Your task to perform on an android device: What's the weather today? Image 0: 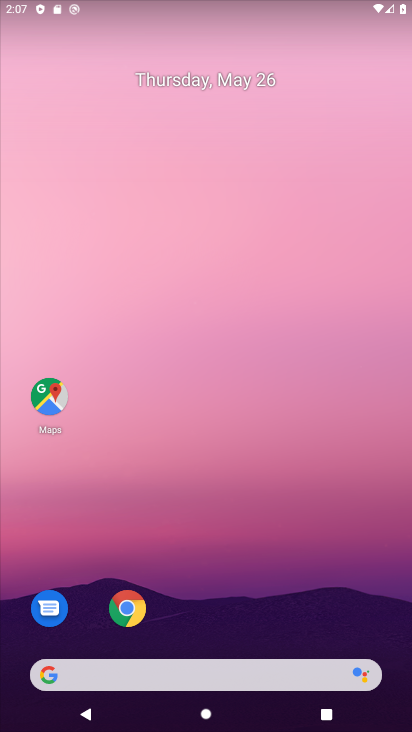
Step 0: drag from (170, 305) to (367, 83)
Your task to perform on an android device: What's the weather today? Image 1: 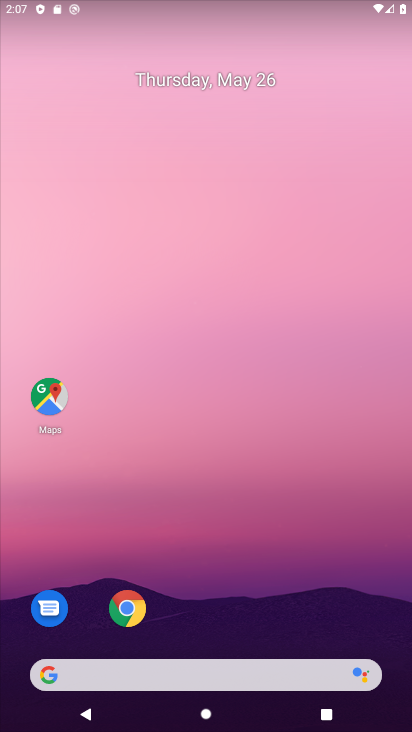
Step 1: drag from (7, 234) to (353, 127)
Your task to perform on an android device: What's the weather today? Image 2: 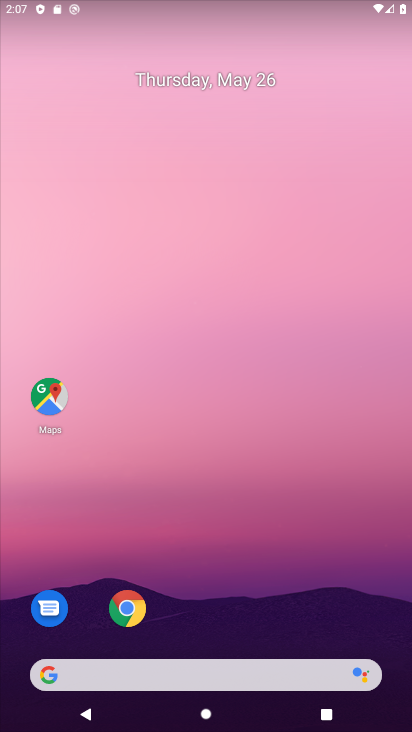
Step 2: drag from (4, 210) to (387, 473)
Your task to perform on an android device: What's the weather today? Image 3: 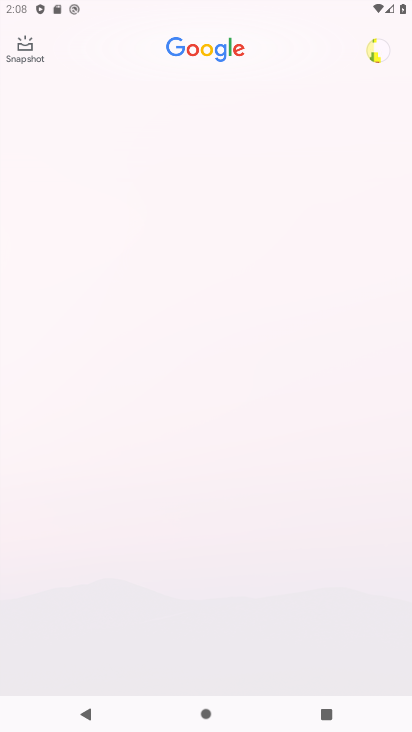
Step 3: click (233, 181)
Your task to perform on an android device: What's the weather today? Image 4: 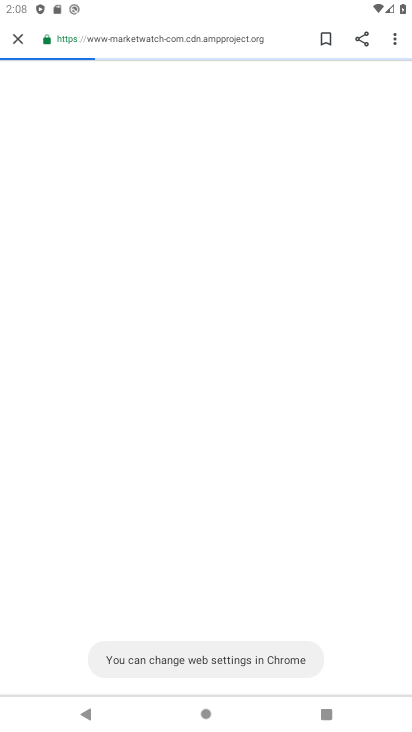
Step 4: click (254, 183)
Your task to perform on an android device: What's the weather today? Image 5: 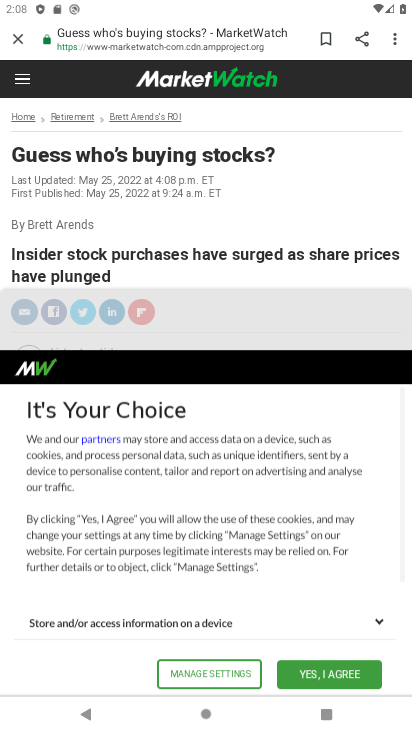
Step 5: press back button
Your task to perform on an android device: What's the weather today? Image 6: 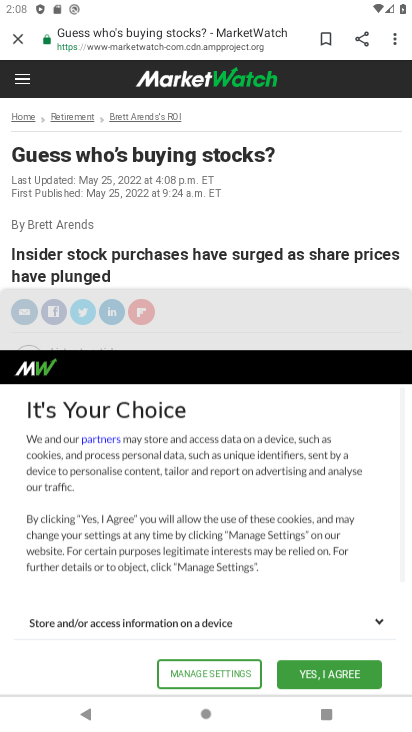
Step 6: press back button
Your task to perform on an android device: What's the weather today? Image 7: 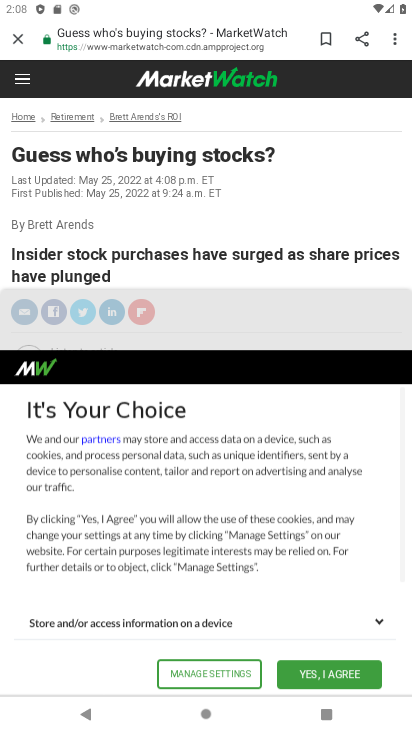
Step 7: press back button
Your task to perform on an android device: What's the weather today? Image 8: 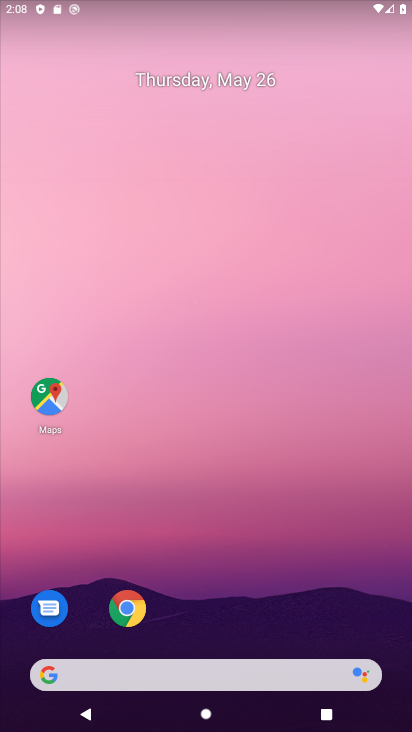
Step 8: drag from (8, 223) to (372, 382)
Your task to perform on an android device: What's the weather today? Image 9: 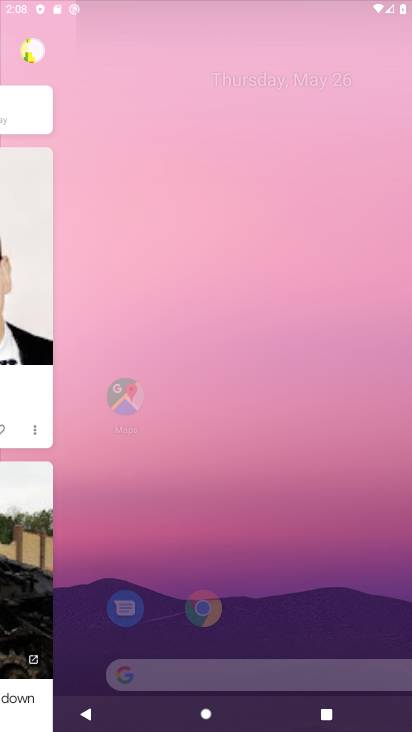
Step 9: drag from (9, 202) to (383, 353)
Your task to perform on an android device: What's the weather today? Image 10: 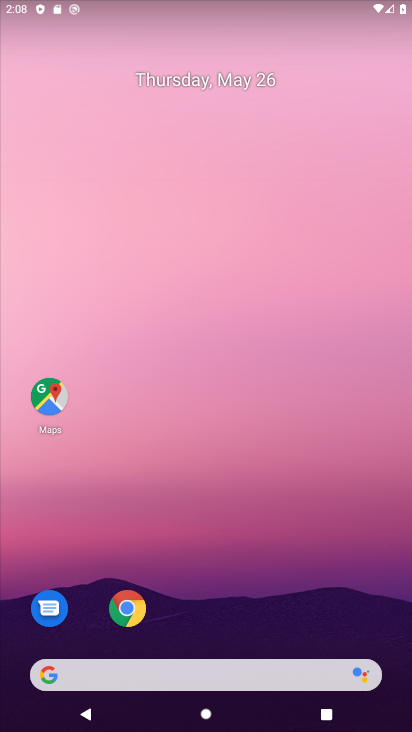
Step 10: drag from (105, 237) to (312, 331)
Your task to perform on an android device: What's the weather today? Image 11: 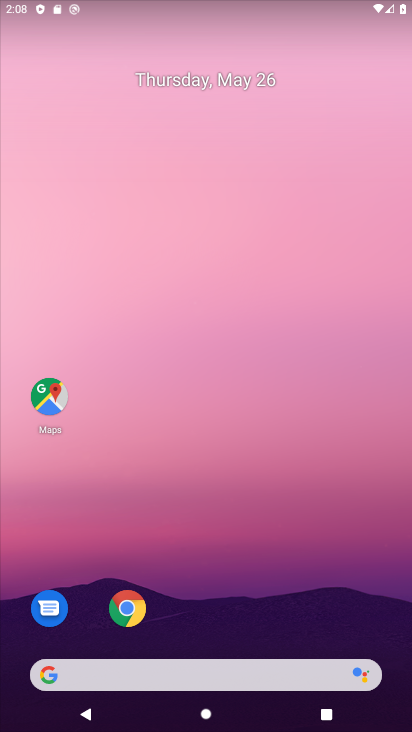
Step 11: drag from (1, 221) to (294, 515)
Your task to perform on an android device: What's the weather today? Image 12: 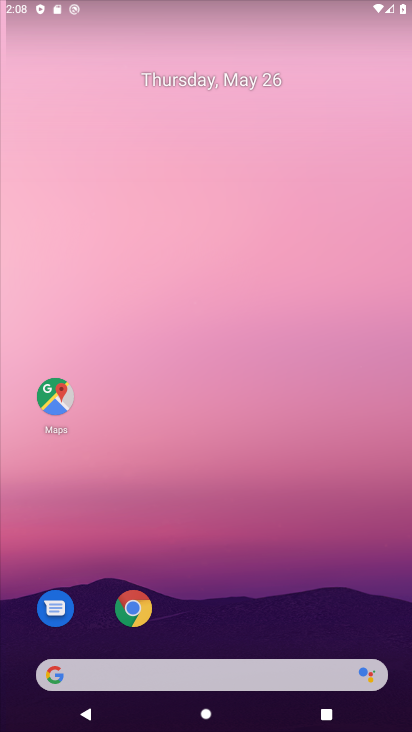
Step 12: drag from (244, 328) to (404, 366)
Your task to perform on an android device: What's the weather today? Image 13: 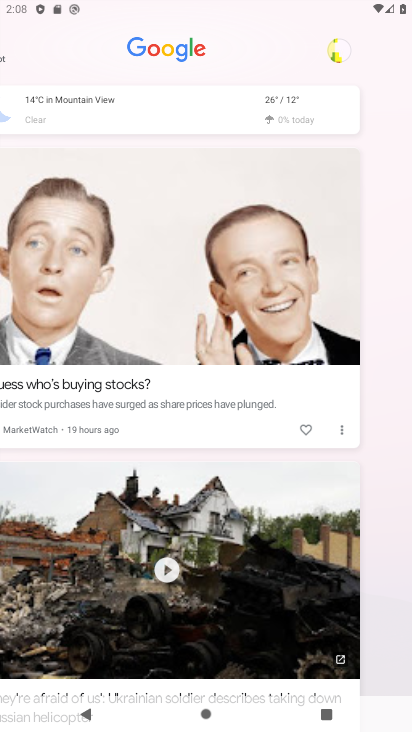
Step 13: drag from (409, 443) to (298, 410)
Your task to perform on an android device: What's the weather today? Image 14: 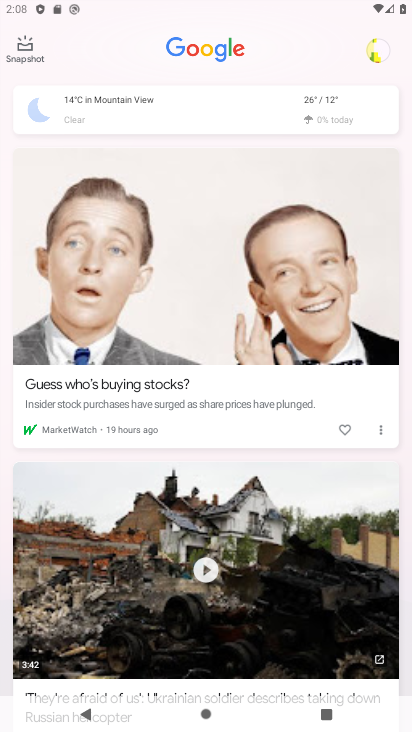
Step 14: click (175, 104)
Your task to perform on an android device: What's the weather today? Image 15: 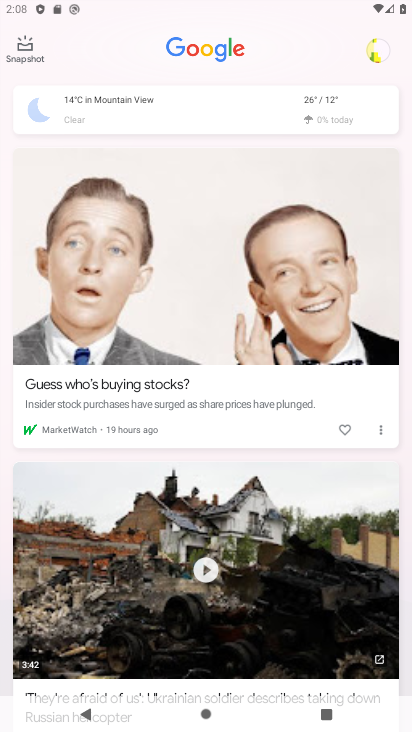
Step 15: click (179, 107)
Your task to perform on an android device: What's the weather today? Image 16: 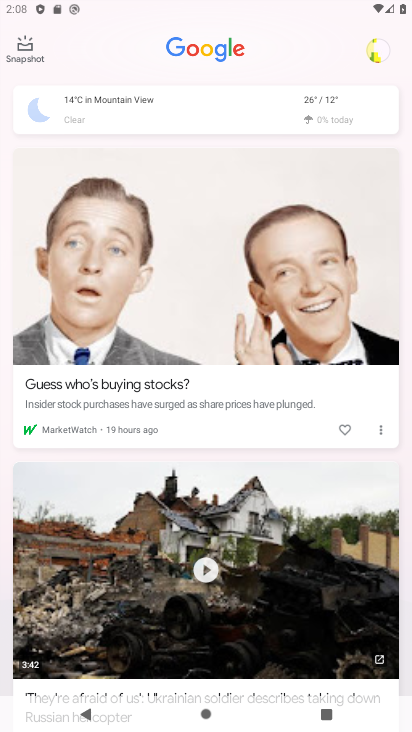
Step 16: click (180, 124)
Your task to perform on an android device: What's the weather today? Image 17: 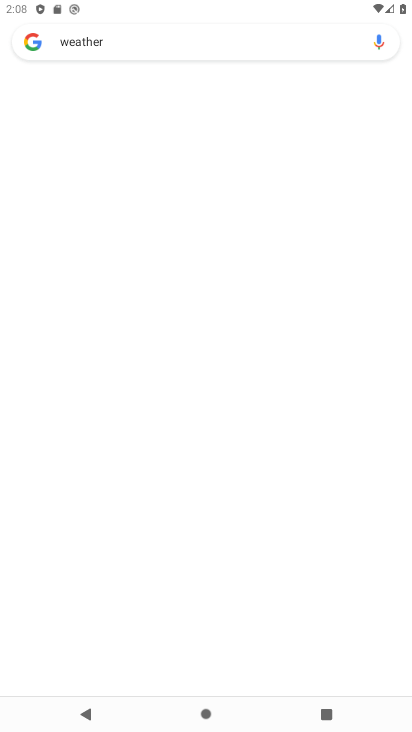
Step 17: click (191, 136)
Your task to perform on an android device: What's the weather today? Image 18: 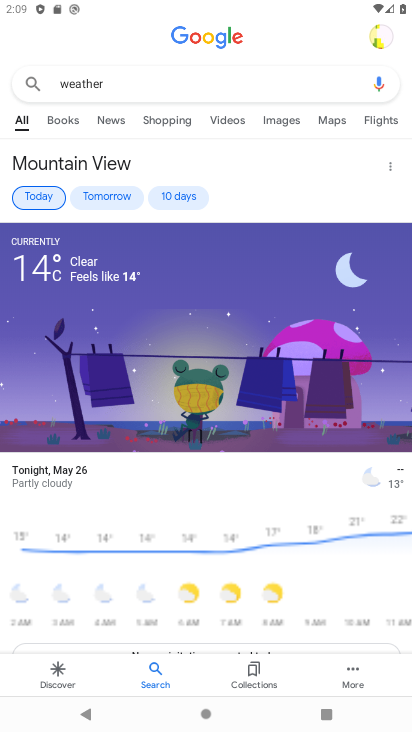
Step 18: click (134, 79)
Your task to perform on an android device: What's the weather today? Image 19: 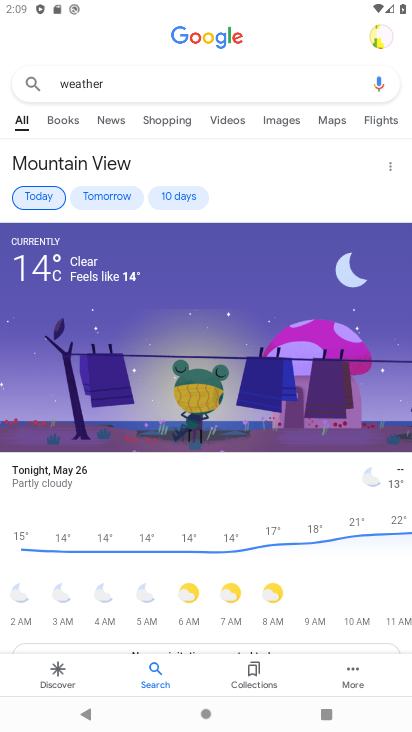
Step 19: click (134, 79)
Your task to perform on an android device: What's the weather today? Image 20: 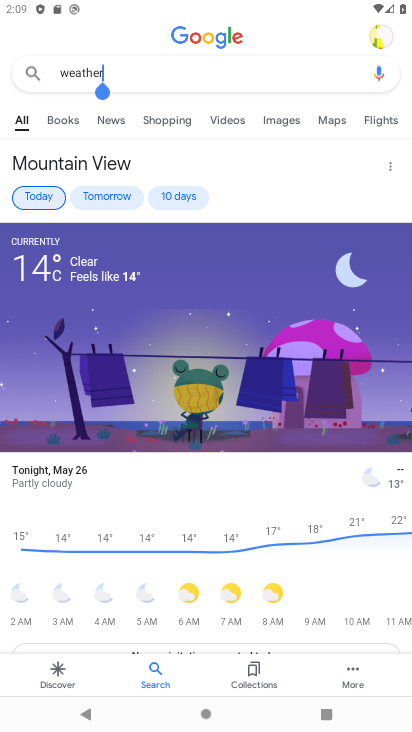
Step 20: click (134, 79)
Your task to perform on an android device: What's the weather today? Image 21: 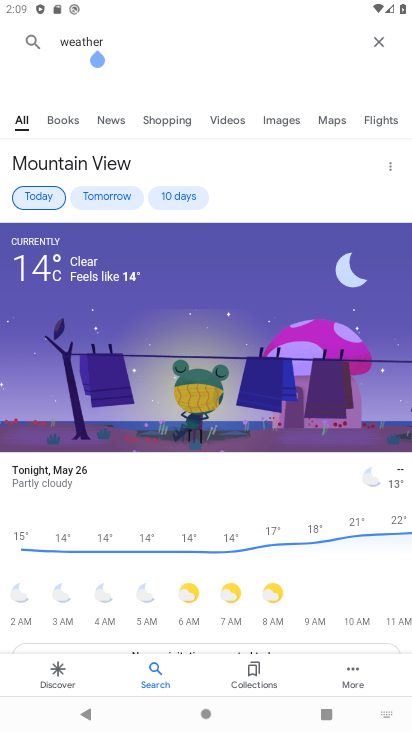
Step 21: click (154, 93)
Your task to perform on an android device: What's the weather today? Image 22: 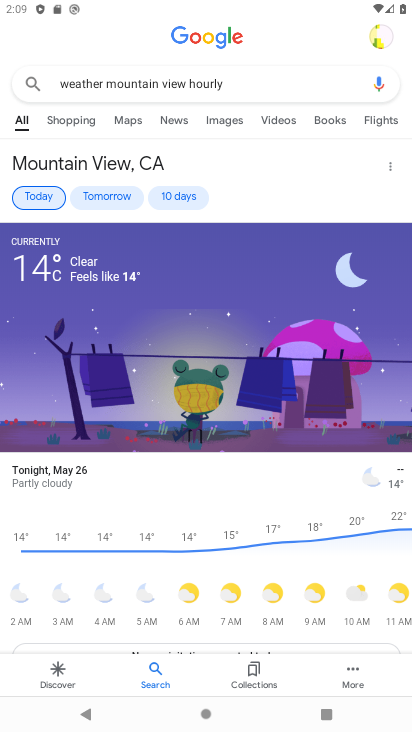
Step 22: task complete